Your task to perform on an android device: change the clock style Image 0: 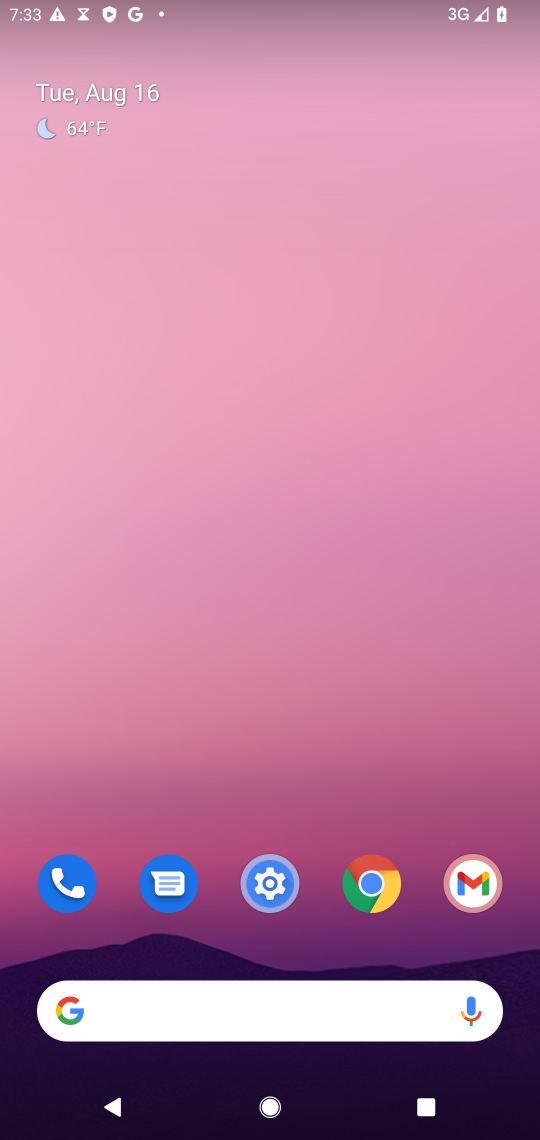
Step 0: drag from (251, 968) to (305, 339)
Your task to perform on an android device: change the clock style Image 1: 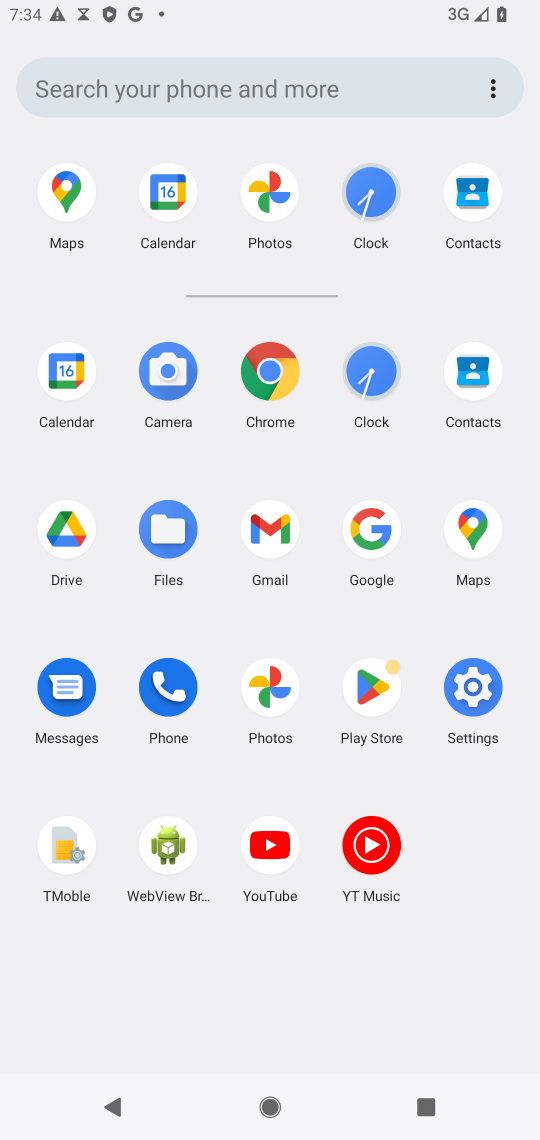
Step 1: click (371, 196)
Your task to perform on an android device: change the clock style Image 2: 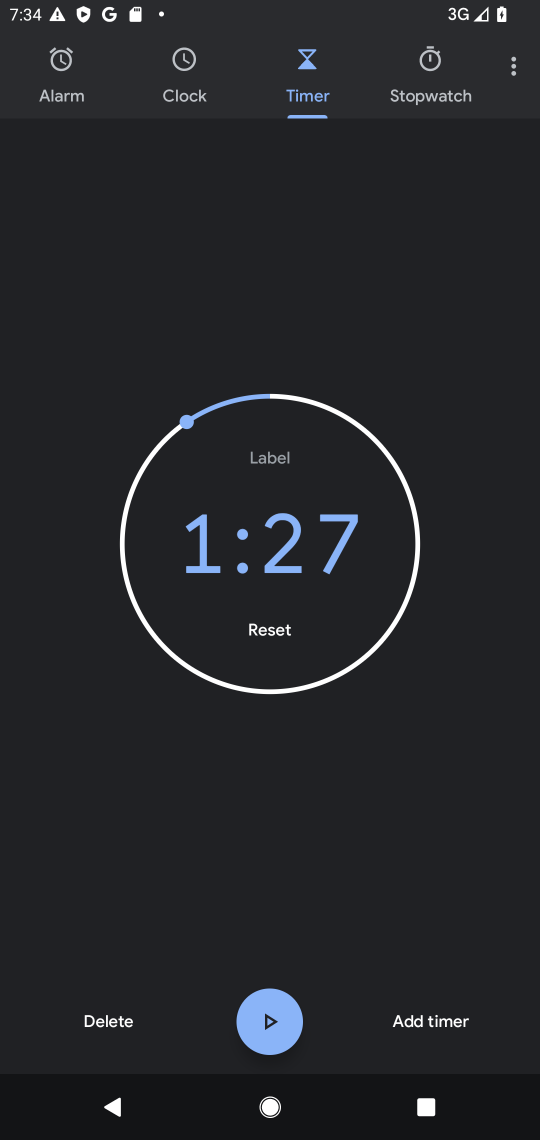
Step 2: click (515, 67)
Your task to perform on an android device: change the clock style Image 3: 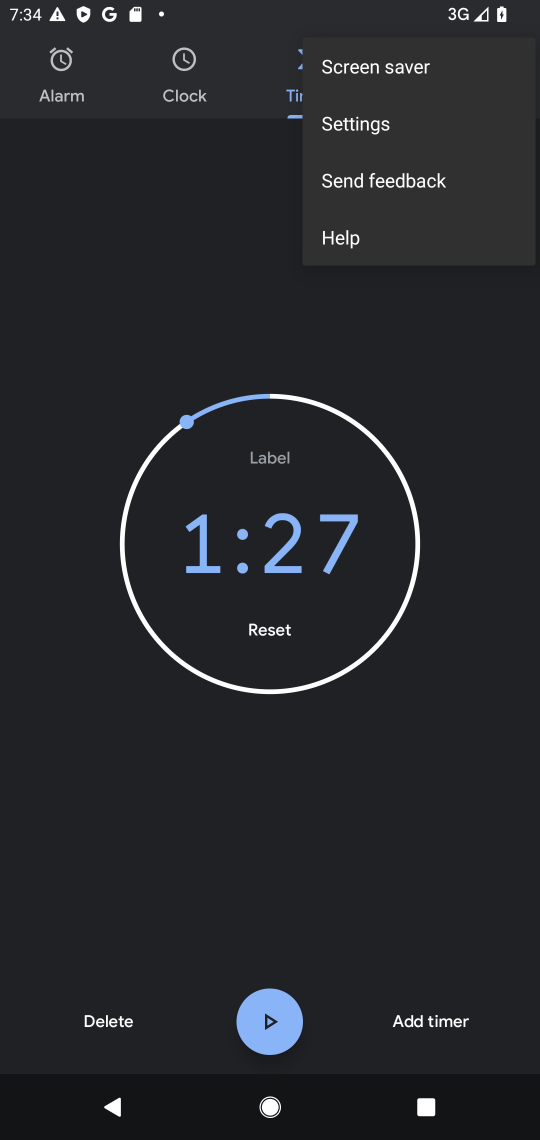
Step 3: click (386, 121)
Your task to perform on an android device: change the clock style Image 4: 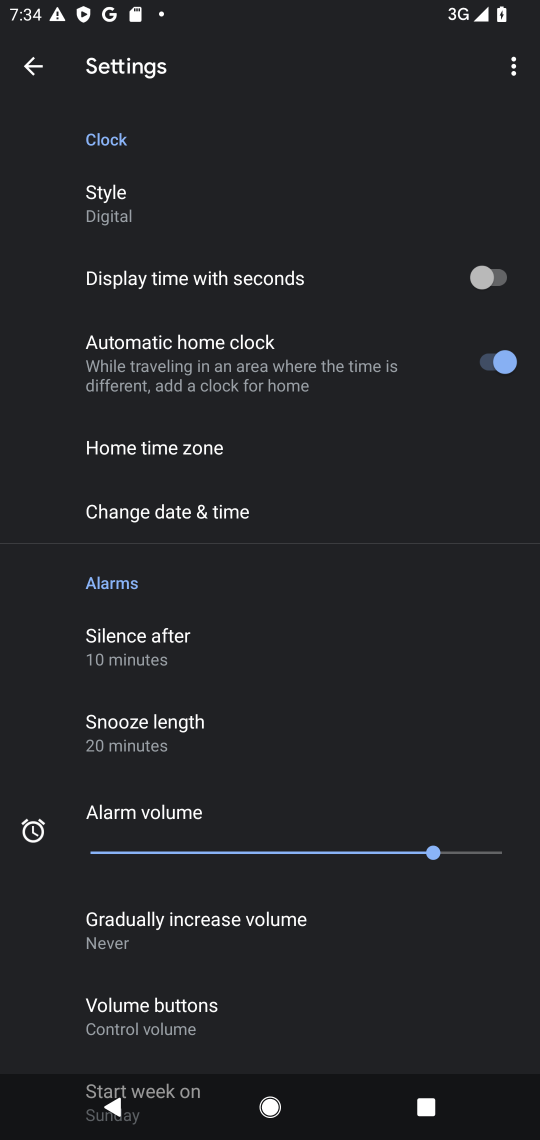
Step 4: click (124, 203)
Your task to perform on an android device: change the clock style Image 5: 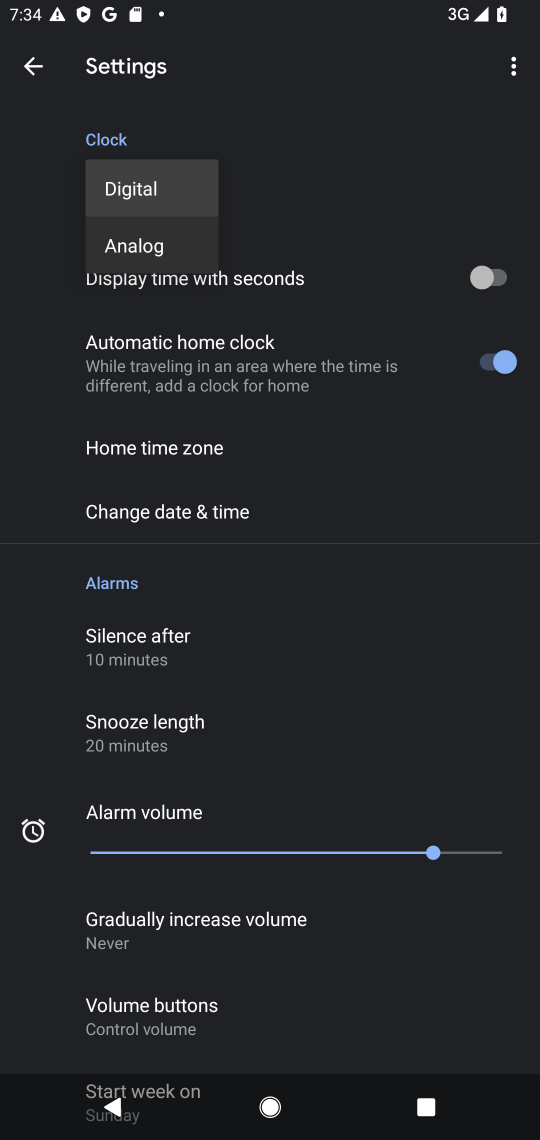
Step 5: click (166, 247)
Your task to perform on an android device: change the clock style Image 6: 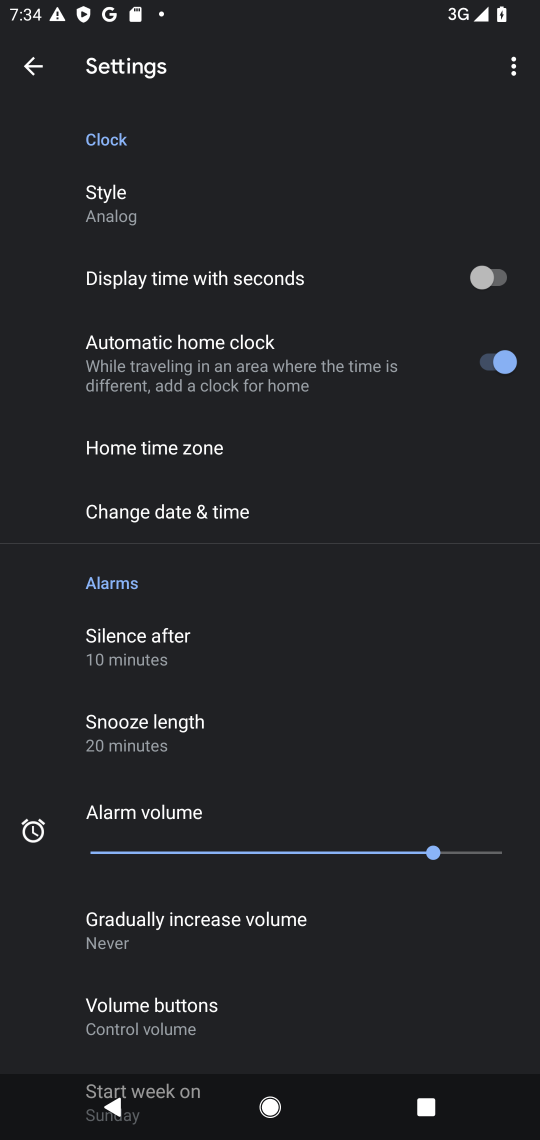
Step 6: task complete